Your task to perform on an android device: check battery use Image 0: 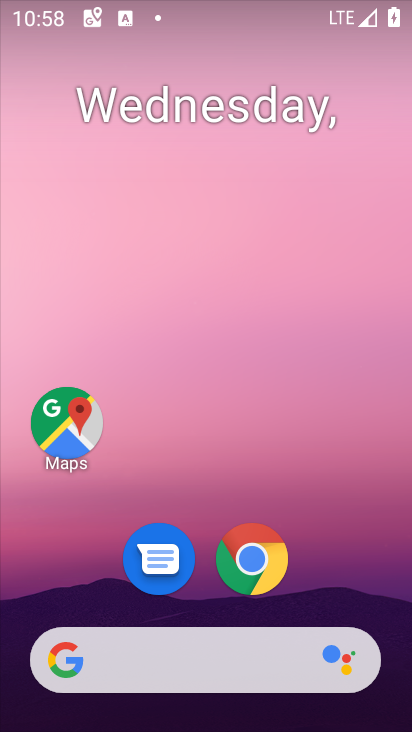
Step 0: drag from (185, 616) to (181, 134)
Your task to perform on an android device: check battery use Image 1: 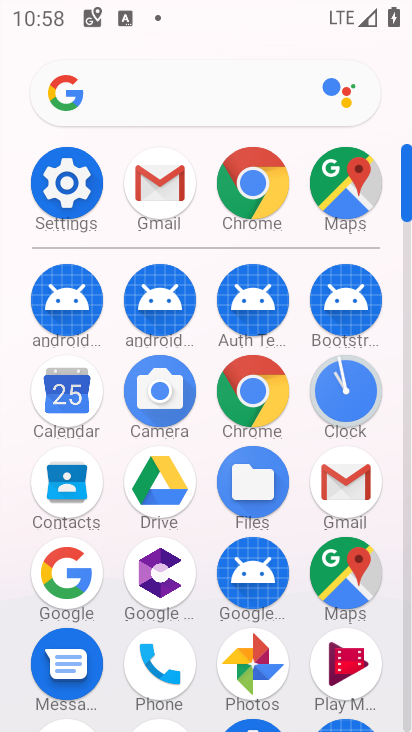
Step 1: click (74, 188)
Your task to perform on an android device: check battery use Image 2: 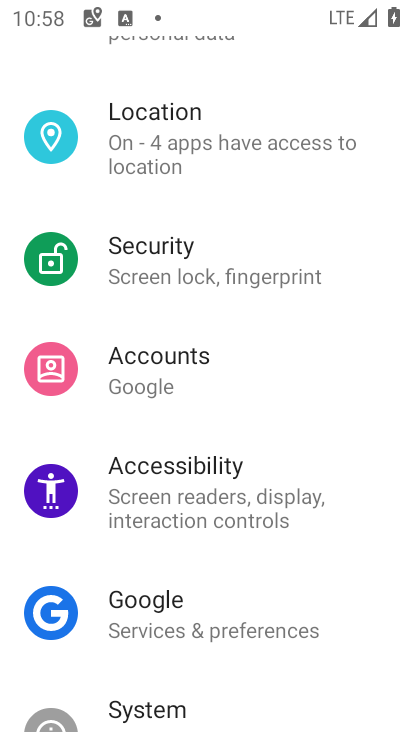
Step 2: drag from (136, 250) to (165, 540)
Your task to perform on an android device: check battery use Image 3: 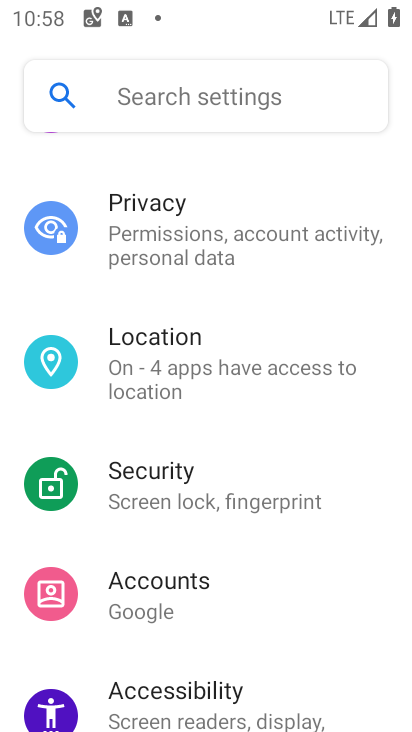
Step 3: drag from (191, 351) to (205, 646)
Your task to perform on an android device: check battery use Image 4: 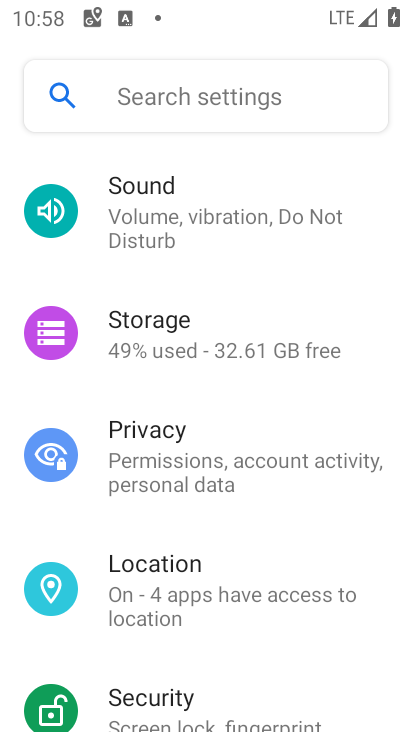
Step 4: drag from (193, 364) to (211, 639)
Your task to perform on an android device: check battery use Image 5: 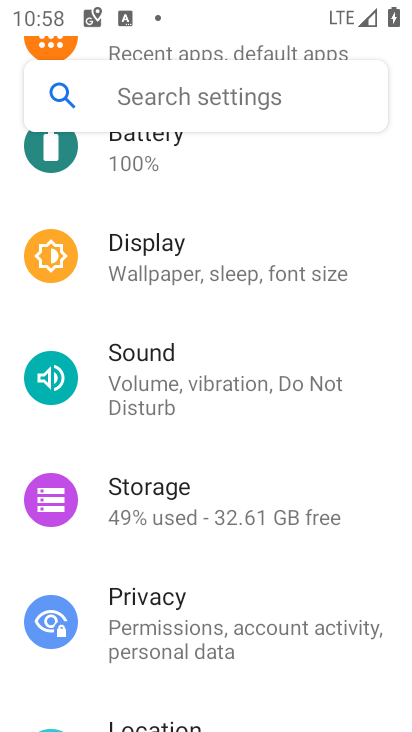
Step 5: drag from (183, 380) to (187, 623)
Your task to perform on an android device: check battery use Image 6: 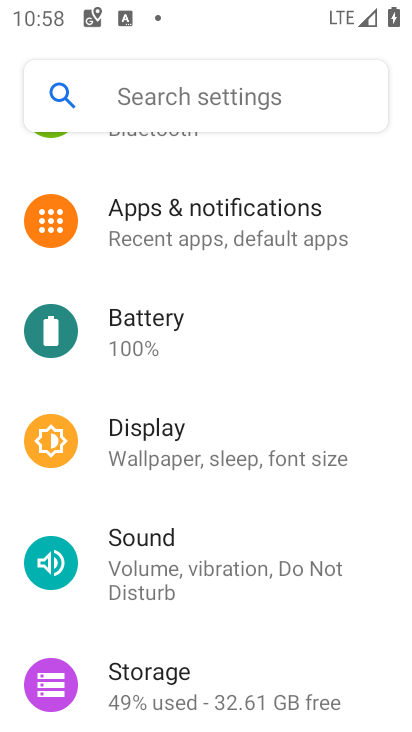
Step 6: click (158, 344)
Your task to perform on an android device: check battery use Image 7: 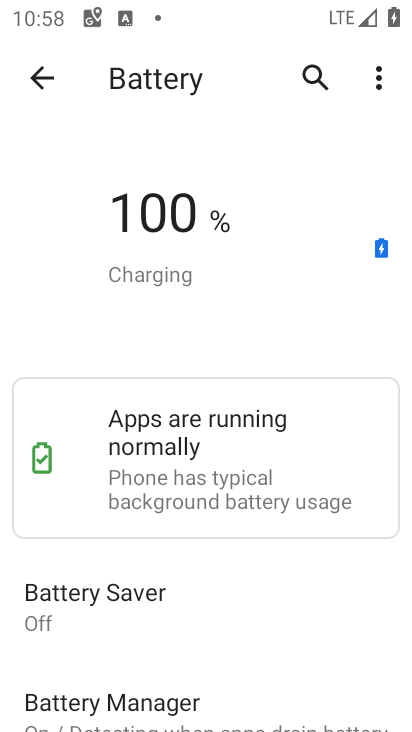
Step 7: task complete